Your task to perform on an android device: toggle translation in the chrome app Image 0: 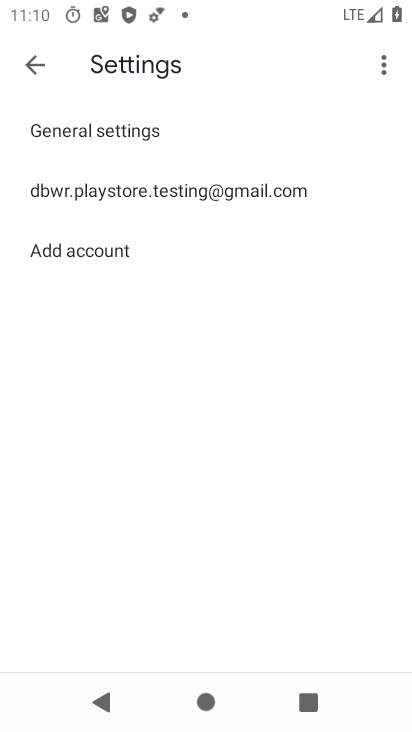
Step 0: press home button
Your task to perform on an android device: toggle translation in the chrome app Image 1: 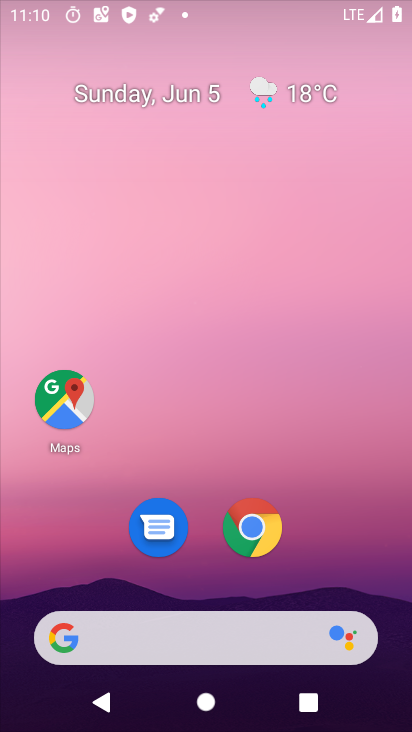
Step 1: drag from (388, 454) to (307, 1)
Your task to perform on an android device: toggle translation in the chrome app Image 2: 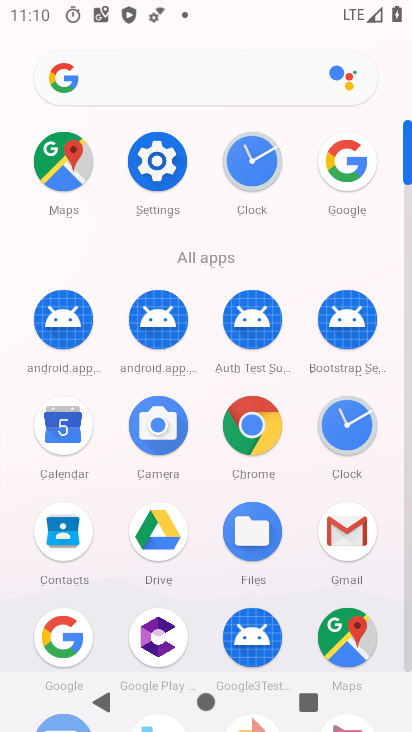
Step 2: click (261, 410)
Your task to perform on an android device: toggle translation in the chrome app Image 3: 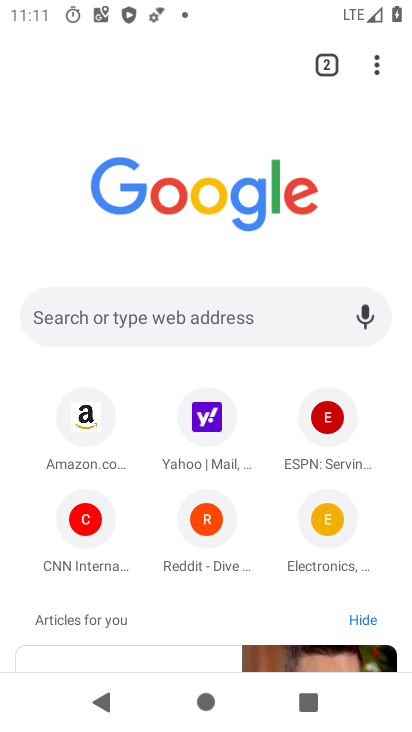
Step 3: click (370, 71)
Your task to perform on an android device: toggle translation in the chrome app Image 4: 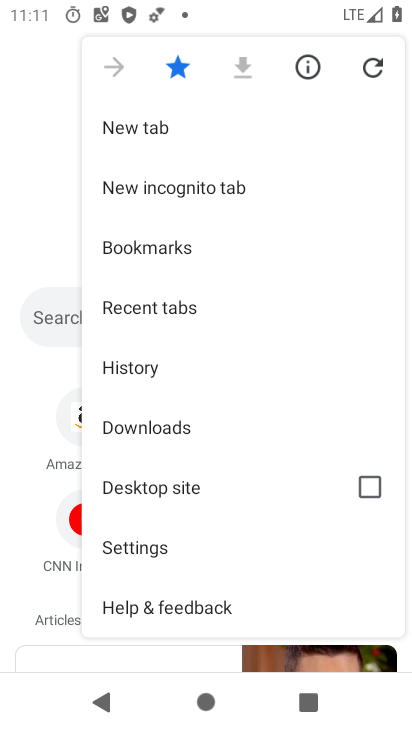
Step 4: click (181, 541)
Your task to perform on an android device: toggle translation in the chrome app Image 5: 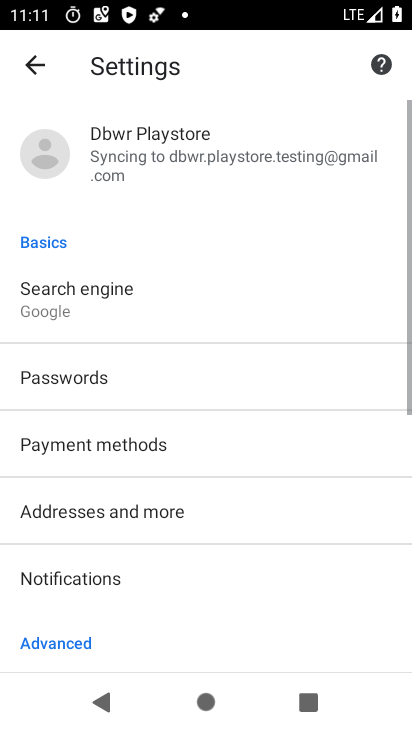
Step 5: drag from (168, 630) to (150, 268)
Your task to perform on an android device: toggle translation in the chrome app Image 6: 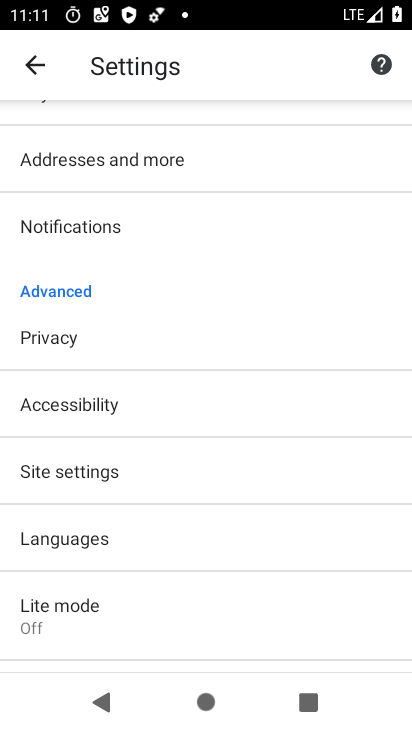
Step 6: click (106, 549)
Your task to perform on an android device: toggle translation in the chrome app Image 7: 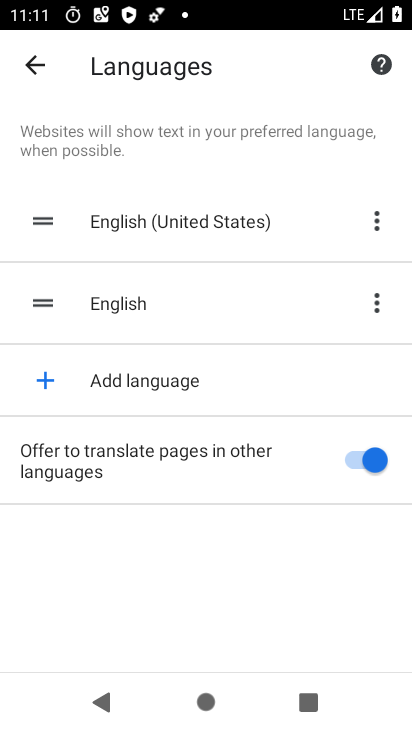
Step 7: click (360, 466)
Your task to perform on an android device: toggle translation in the chrome app Image 8: 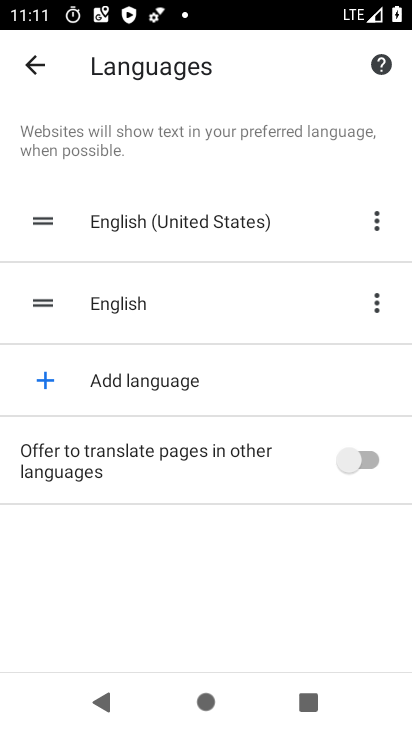
Step 8: task complete